Your task to perform on an android device: Search for pizza restaurants on Maps Image 0: 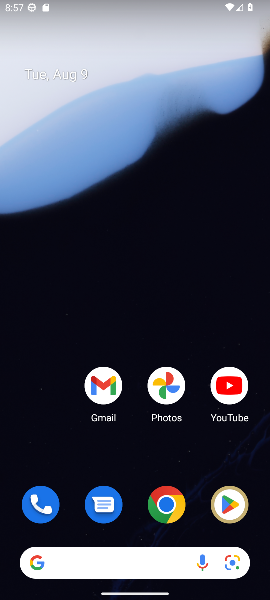
Step 0: drag from (138, 468) to (113, 85)
Your task to perform on an android device: Search for pizza restaurants on Maps Image 1: 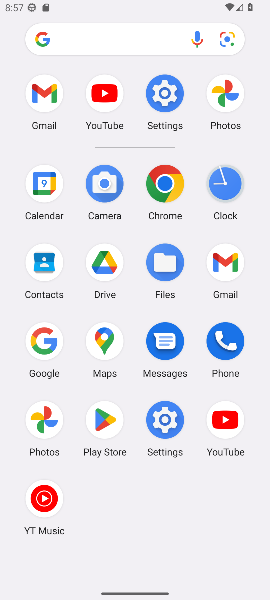
Step 1: click (98, 335)
Your task to perform on an android device: Search for pizza restaurants on Maps Image 2: 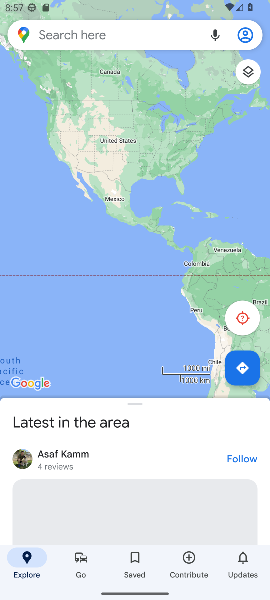
Step 2: click (128, 34)
Your task to perform on an android device: Search for pizza restaurants on Maps Image 3: 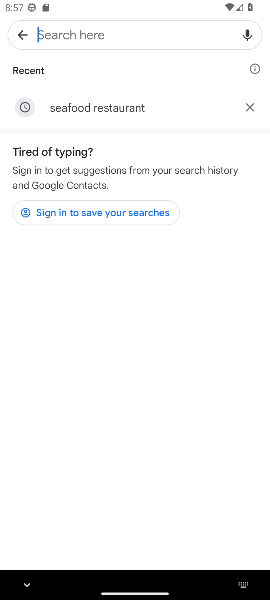
Step 3: type "pizza restaurants"
Your task to perform on an android device: Search for pizza restaurants on Maps Image 4: 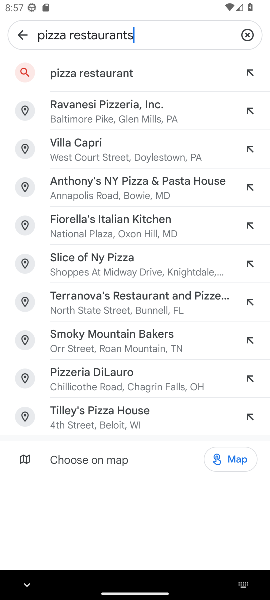
Step 4: click (110, 70)
Your task to perform on an android device: Search for pizza restaurants on Maps Image 5: 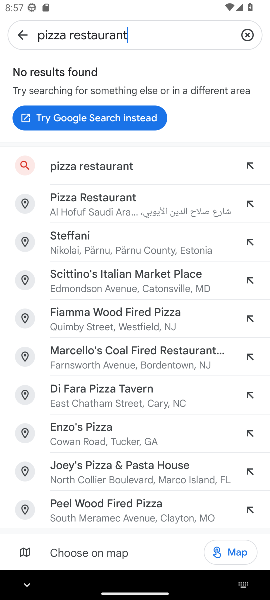
Step 5: click (103, 164)
Your task to perform on an android device: Search for pizza restaurants on Maps Image 6: 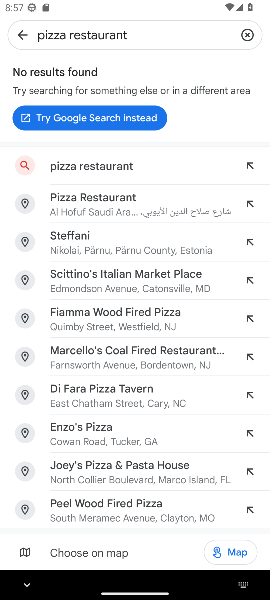
Step 6: click (108, 162)
Your task to perform on an android device: Search for pizza restaurants on Maps Image 7: 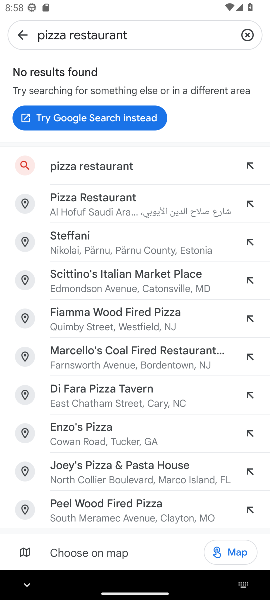
Step 7: task complete